Your task to perform on an android device: search for starred emails in the gmail app Image 0: 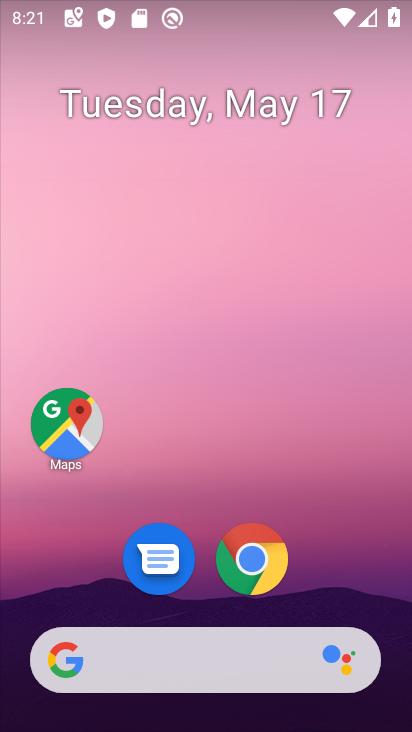
Step 0: click (57, 441)
Your task to perform on an android device: search for starred emails in the gmail app Image 1: 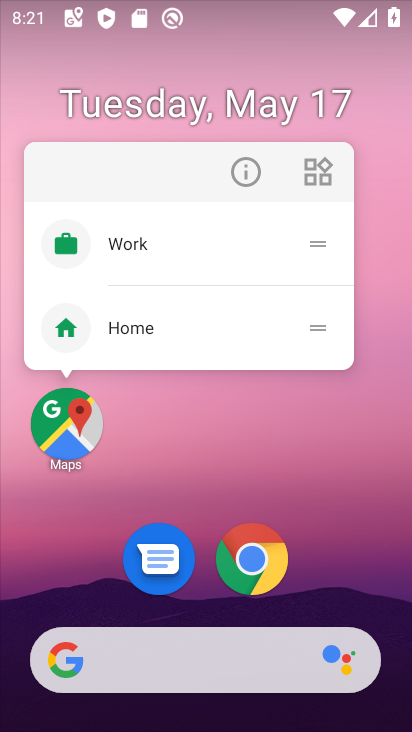
Step 1: press home button
Your task to perform on an android device: search for starred emails in the gmail app Image 2: 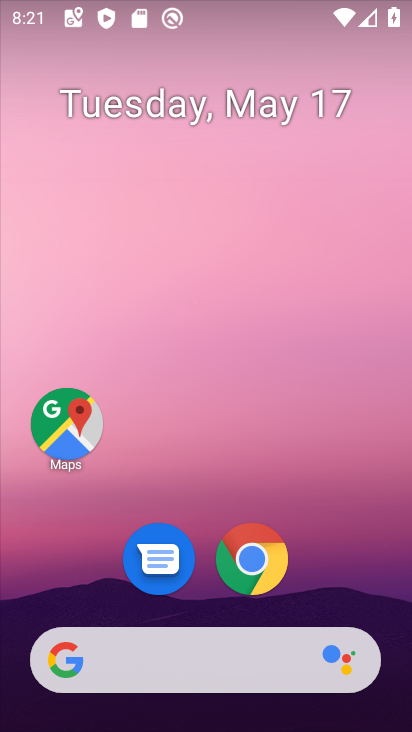
Step 2: drag from (202, 709) to (165, 147)
Your task to perform on an android device: search for starred emails in the gmail app Image 3: 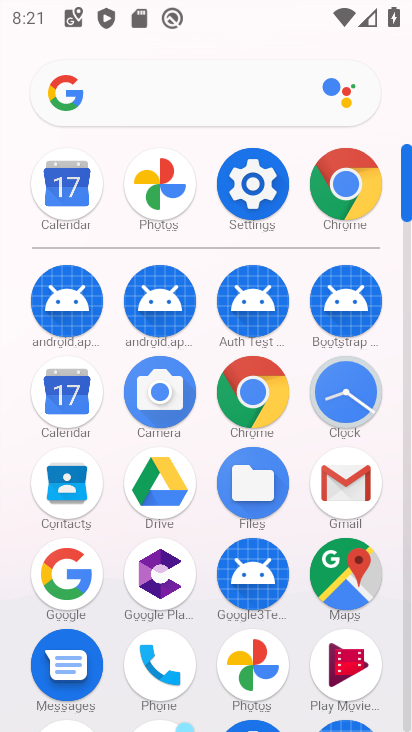
Step 3: click (345, 477)
Your task to perform on an android device: search for starred emails in the gmail app Image 4: 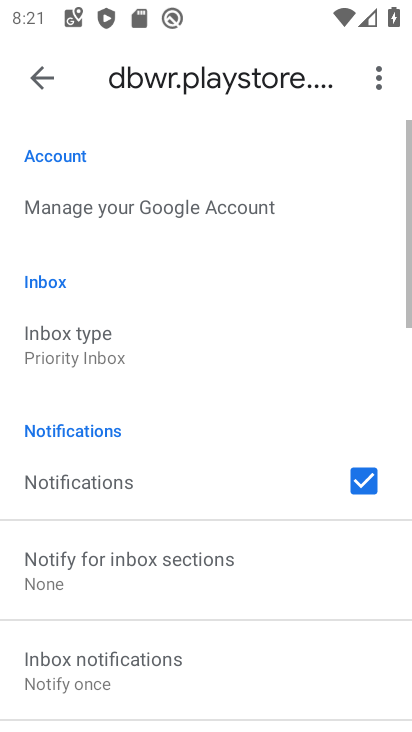
Step 4: click (34, 77)
Your task to perform on an android device: search for starred emails in the gmail app Image 5: 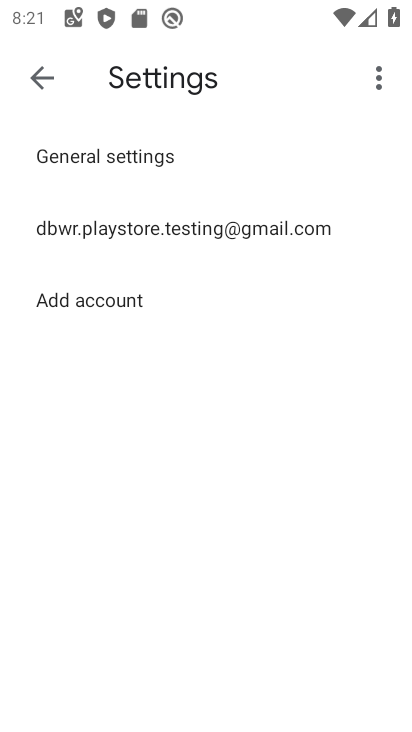
Step 5: click (39, 80)
Your task to perform on an android device: search for starred emails in the gmail app Image 6: 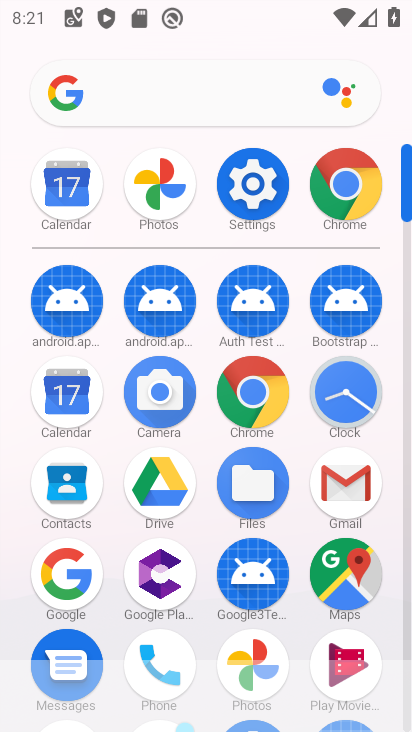
Step 6: click (357, 488)
Your task to perform on an android device: search for starred emails in the gmail app Image 7: 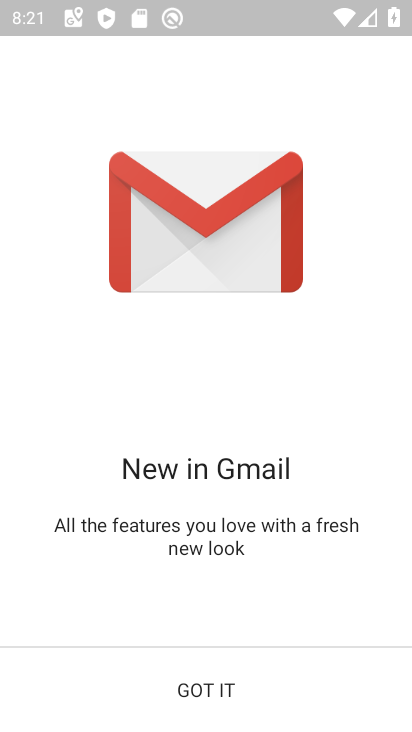
Step 7: click (215, 710)
Your task to perform on an android device: search for starred emails in the gmail app Image 8: 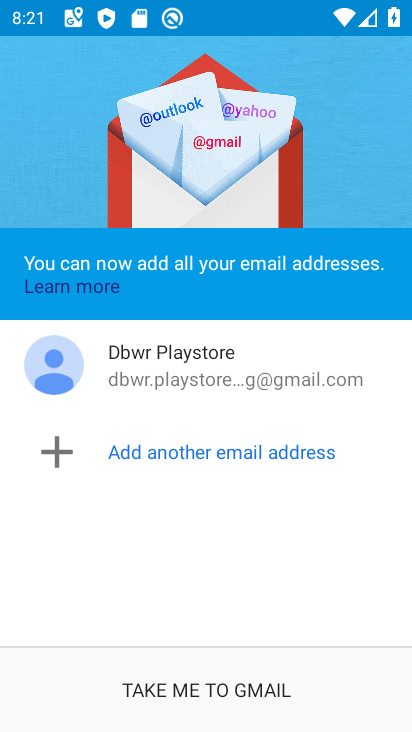
Step 8: click (235, 691)
Your task to perform on an android device: search for starred emails in the gmail app Image 9: 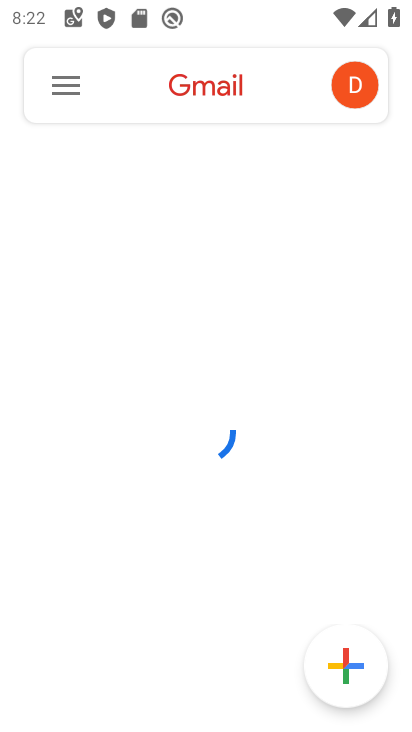
Step 9: click (57, 79)
Your task to perform on an android device: search for starred emails in the gmail app Image 10: 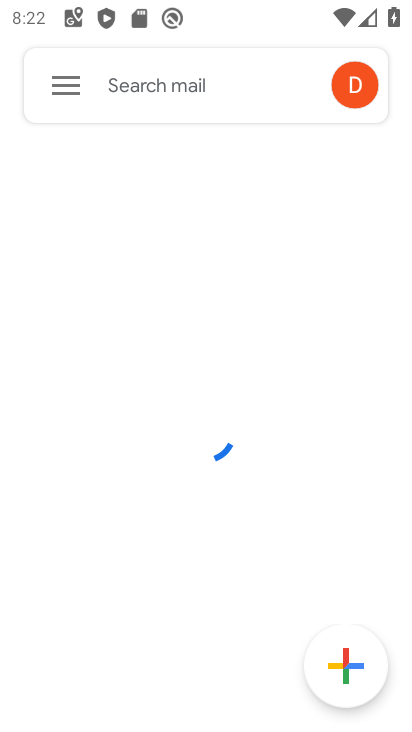
Step 10: click (66, 84)
Your task to perform on an android device: search for starred emails in the gmail app Image 11: 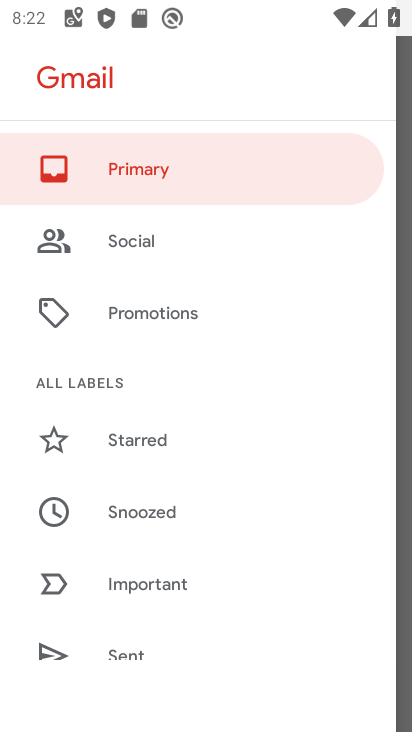
Step 11: click (153, 437)
Your task to perform on an android device: search for starred emails in the gmail app Image 12: 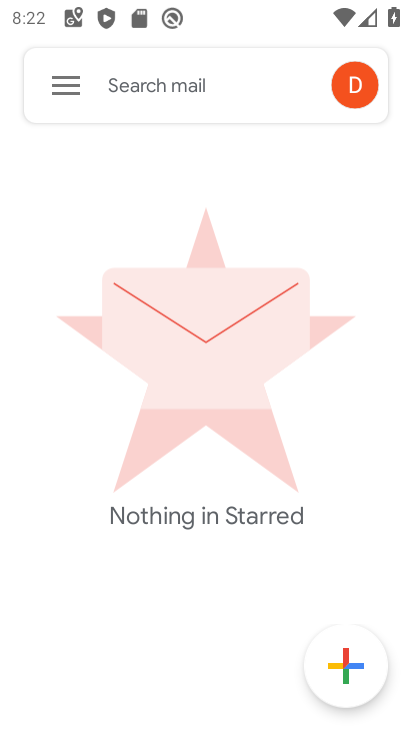
Step 12: task complete